Your task to perform on an android device: Go to sound settings Image 0: 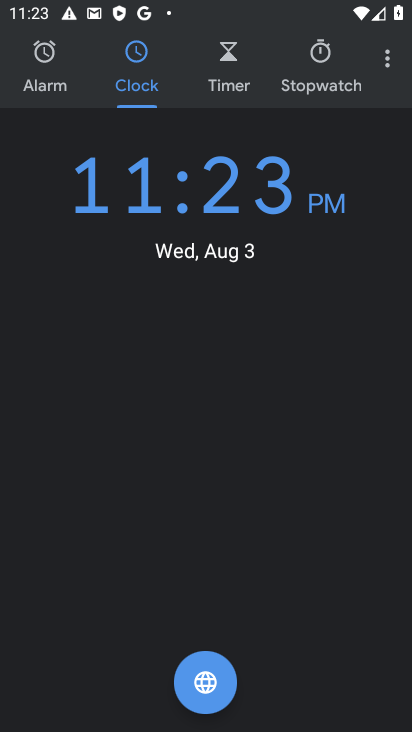
Step 0: press home button
Your task to perform on an android device: Go to sound settings Image 1: 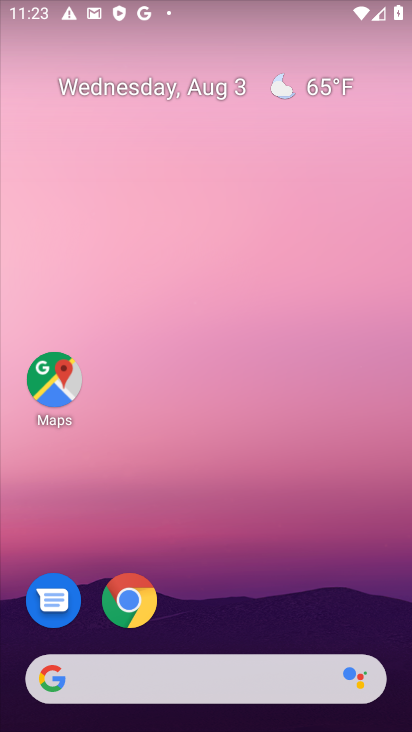
Step 1: drag from (206, 631) to (137, 3)
Your task to perform on an android device: Go to sound settings Image 2: 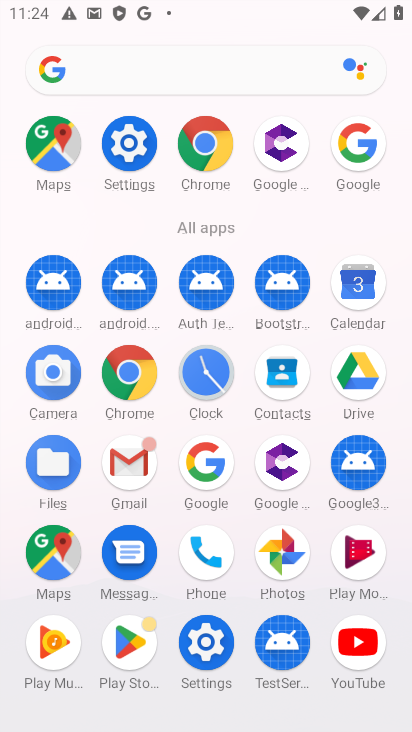
Step 2: click (122, 113)
Your task to perform on an android device: Go to sound settings Image 3: 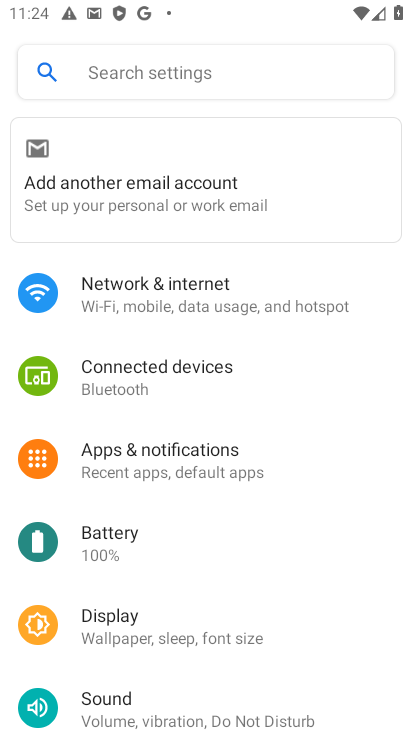
Step 3: click (49, 693)
Your task to perform on an android device: Go to sound settings Image 4: 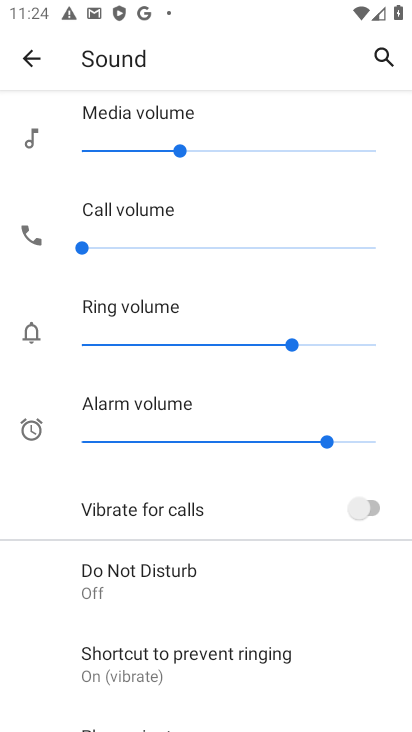
Step 4: task complete